Your task to perform on an android device: Open calendar and show me the second week of next month Image 0: 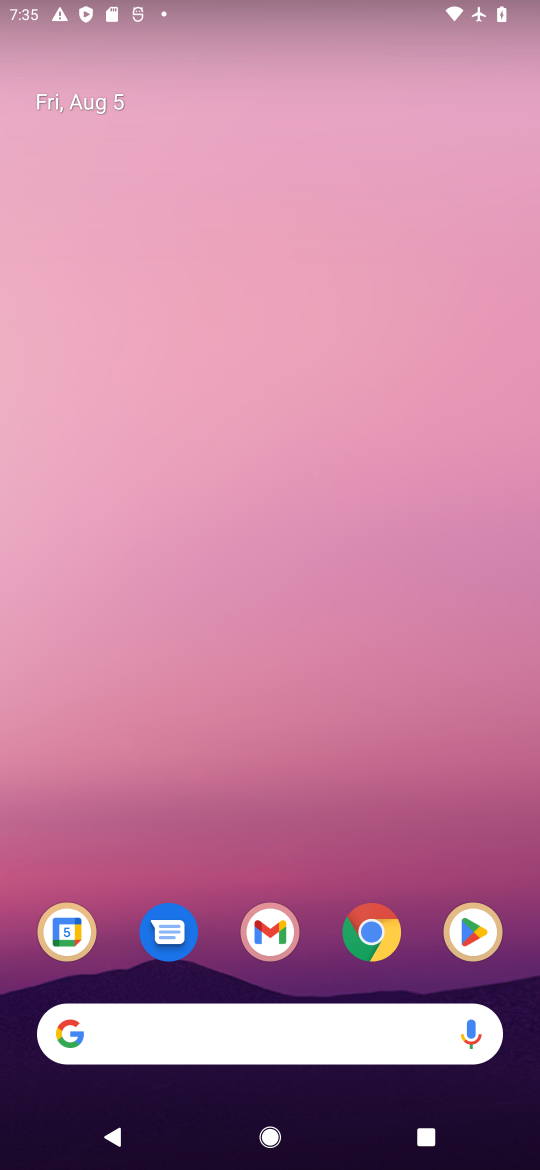
Step 0: drag from (246, 1058) to (385, 477)
Your task to perform on an android device: Open calendar and show me the second week of next month Image 1: 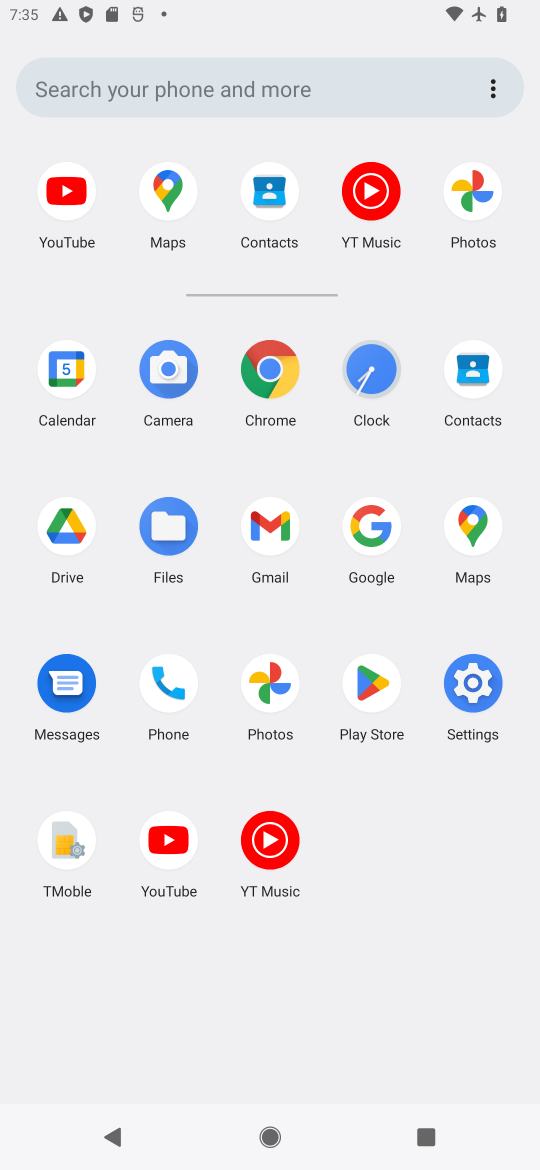
Step 1: click (67, 368)
Your task to perform on an android device: Open calendar and show me the second week of next month Image 2: 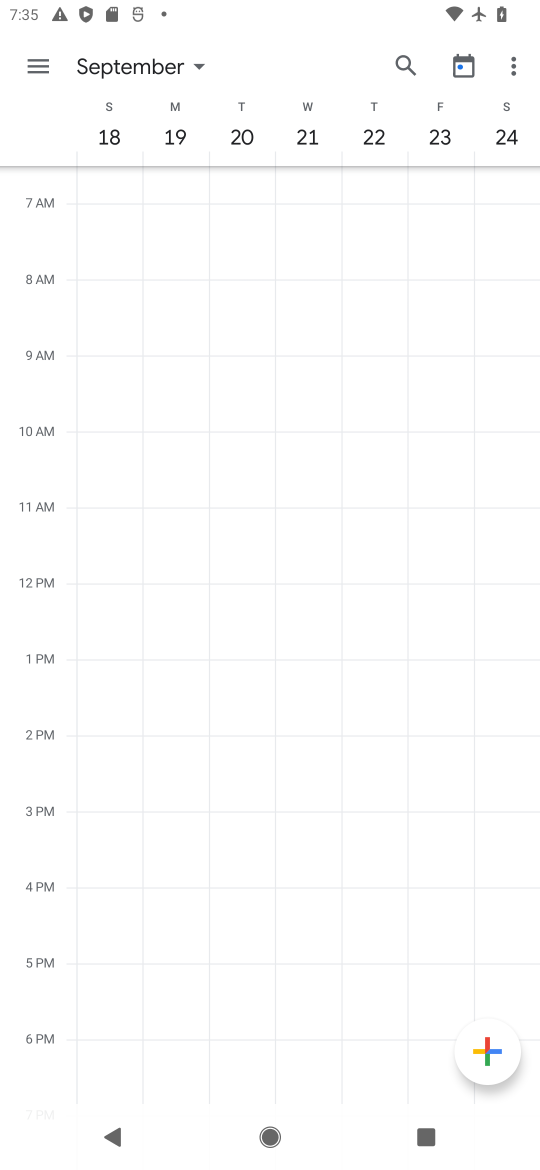
Step 2: click (465, 65)
Your task to perform on an android device: Open calendar and show me the second week of next month Image 3: 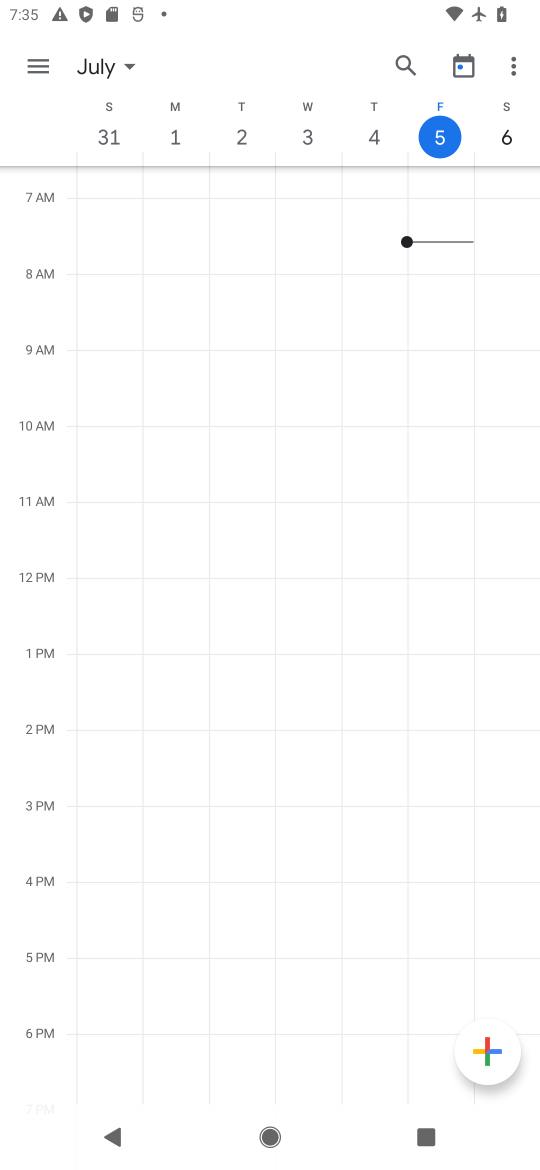
Step 3: click (472, 72)
Your task to perform on an android device: Open calendar and show me the second week of next month Image 4: 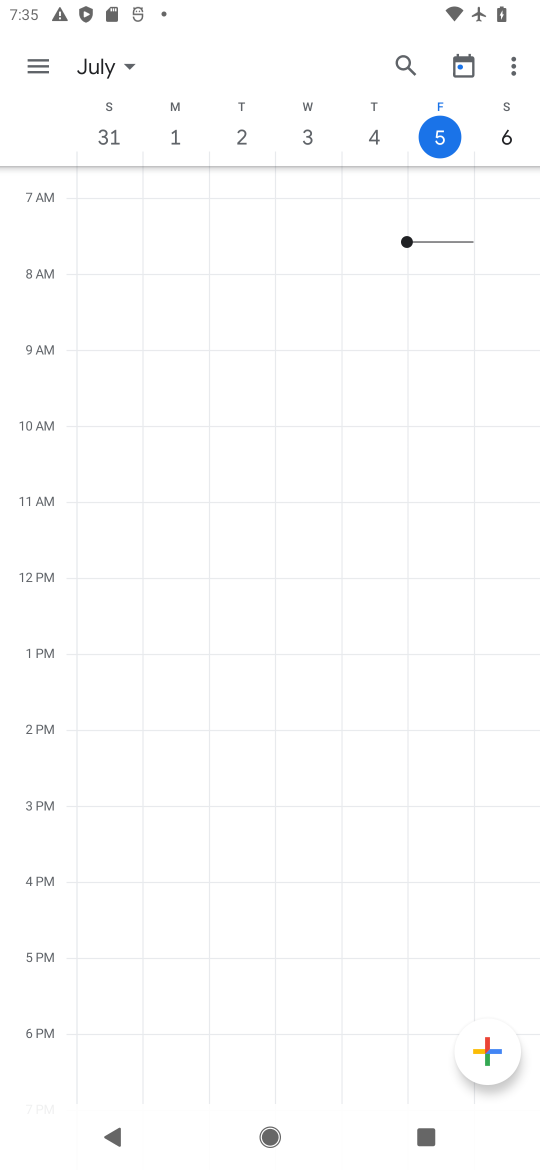
Step 4: click (471, 65)
Your task to perform on an android device: Open calendar and show me the second week of next month Image 5: 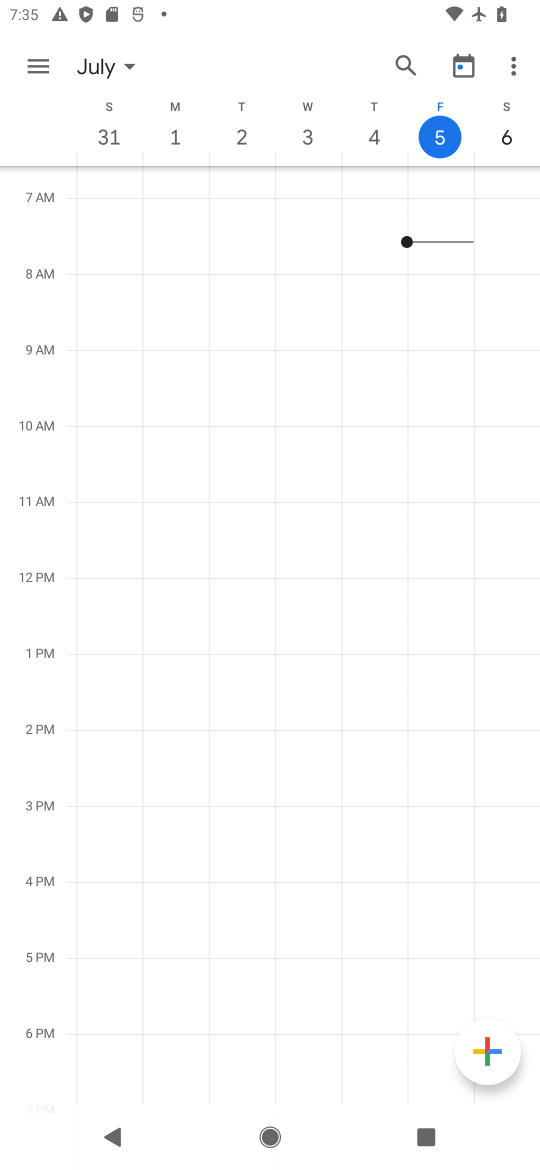
Step 5: click (130, 57)
Your task to perform on an android device: Open calendar and show me the second week of next month Image 6: 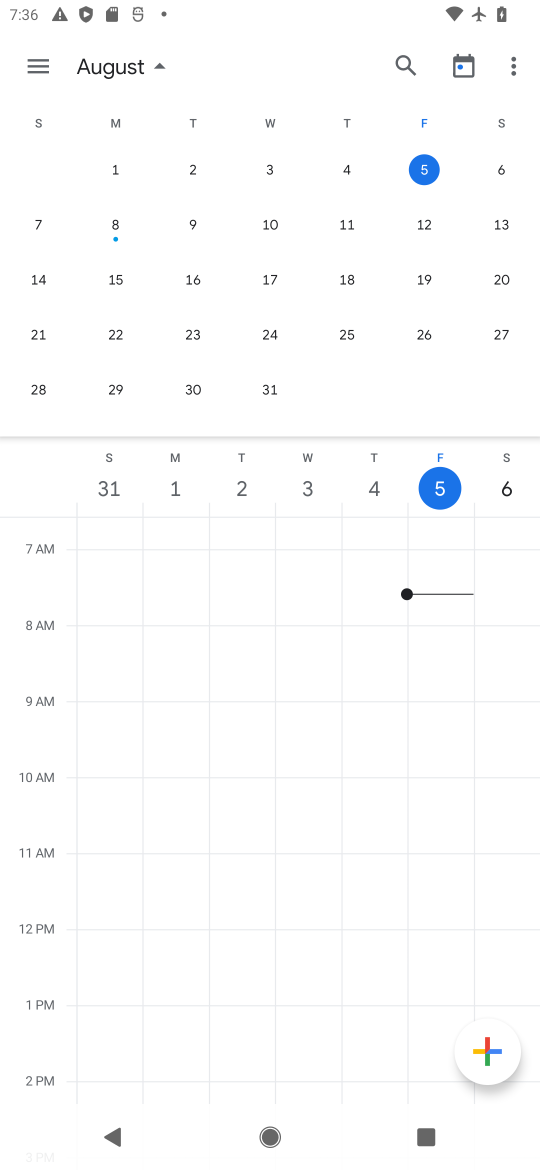
Step 6: drag from (517, 308) to (0, 276)
Your task to perform on an android device: Open calendar and show me the second week of next month Image 7: 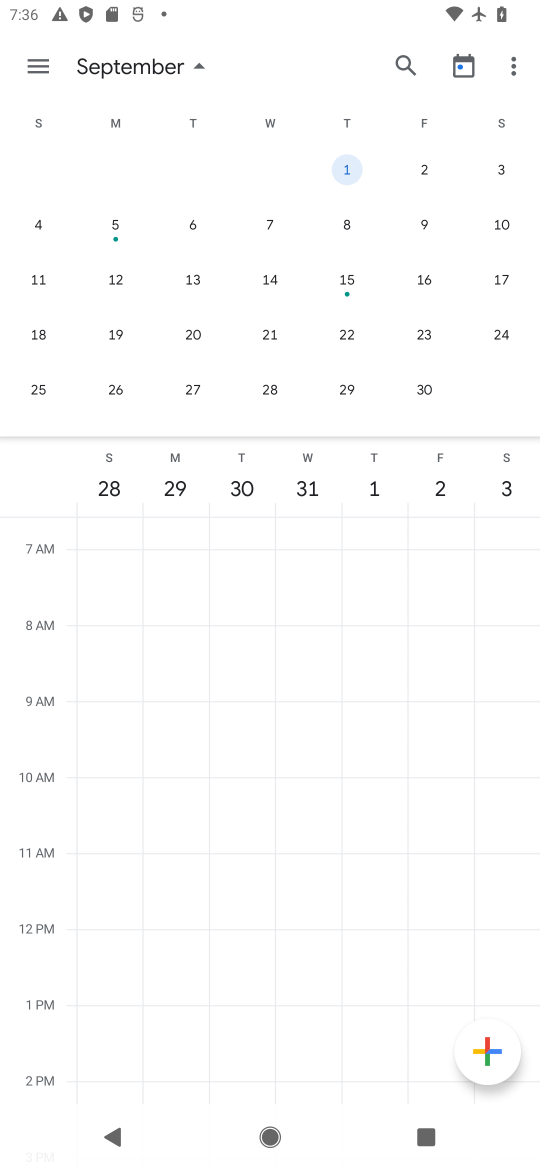
Step 7: click (126, 278)
Your task to perform on an android device: Open calendar and show me the second week of next month Image 8: 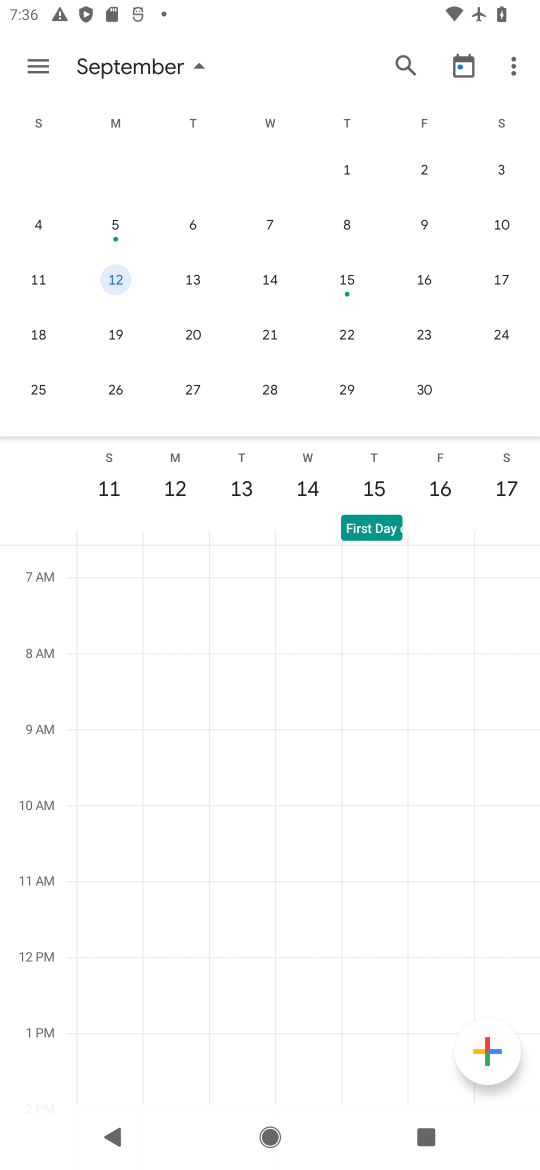
Step 8: click (29, 62)
Your task to perform on an android device: Open calendar and show me the second week of next month Image 9: 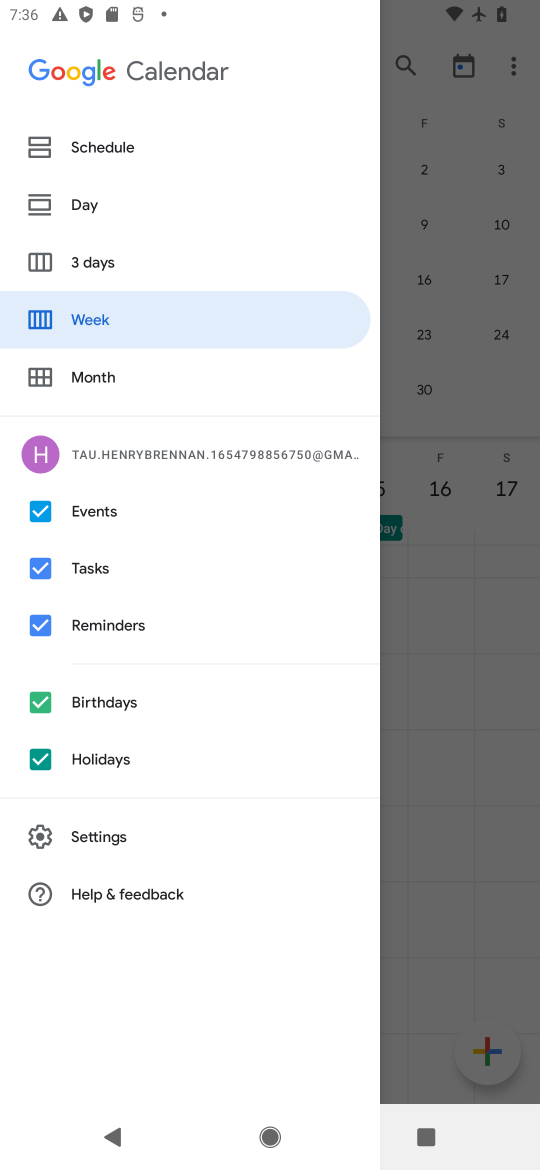
Step 9: click (129, 310)
Your task to perform on an android device: Open calendar and show me the second week of next month Image 10: 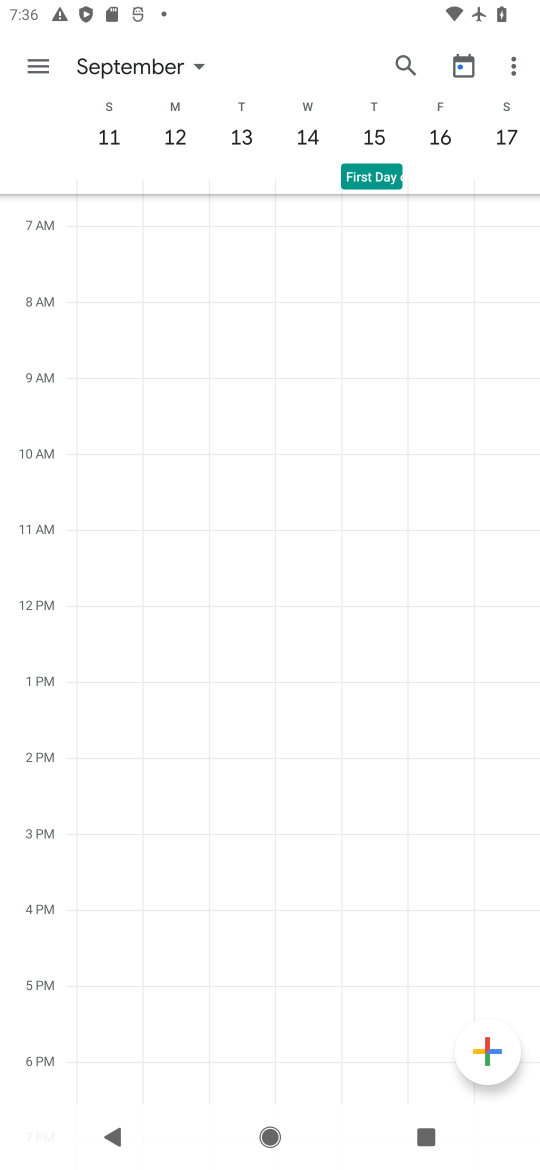
Step 10: task complete